Your task to perform on an android device: change the clock display to digital Image 0: 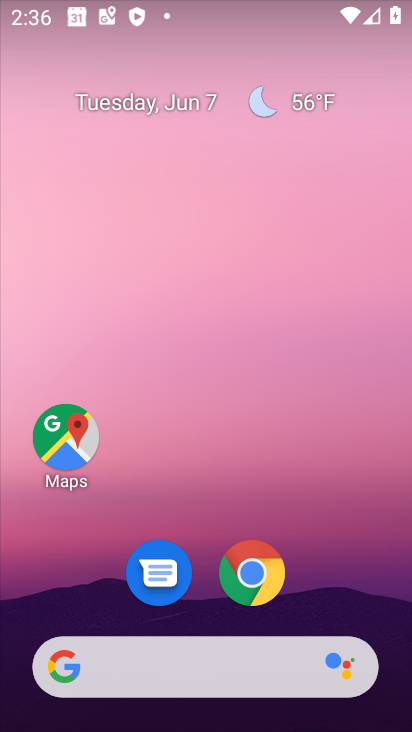
Step 0: drag from (334, 585) to (380, 5)
Your task to perform on an android device: change the clock display to digital Image 1: 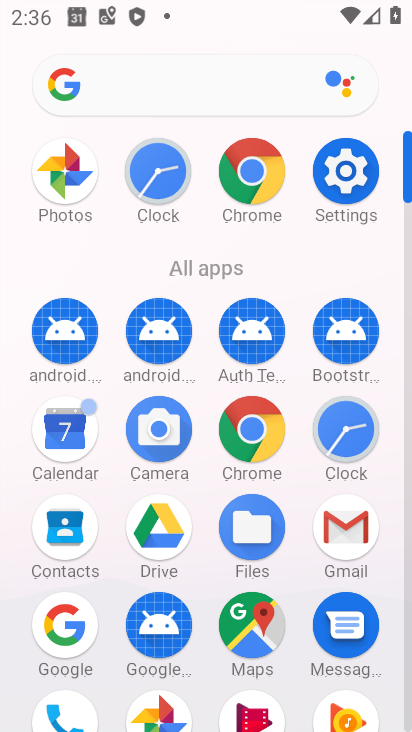
Step 1: click (343, 431)
Your task to perform on an android device: change the clock display to digital Image 2: 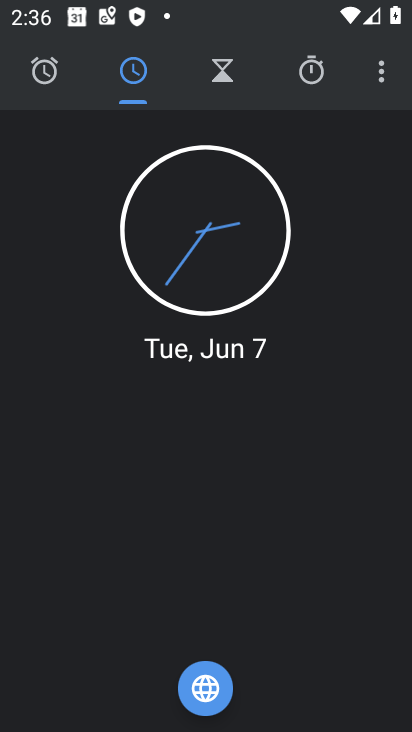
Step 2: click (375, 80)
Your task to perform on an android device: change the clock display to digital Image 3: 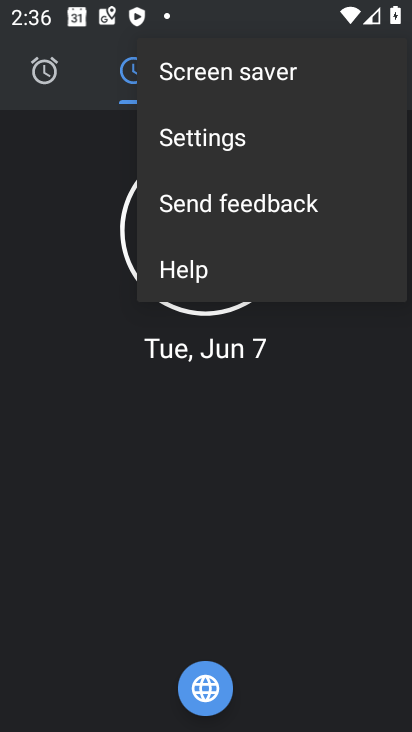
Step 3: click (206, 132)
Your task to perform on an android device: change the clock display to digital Image 4: 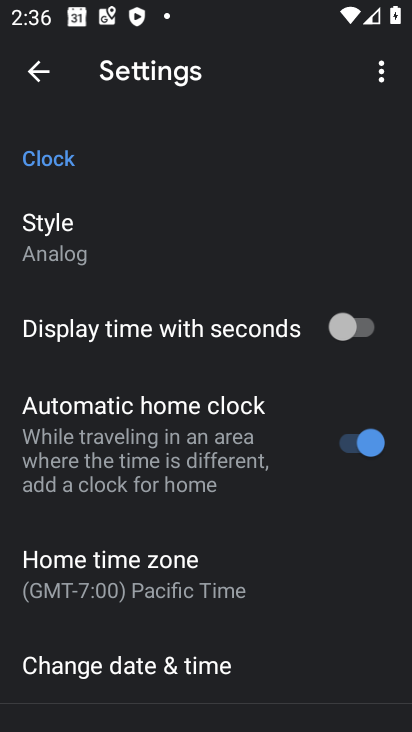
Step 4: click (73, 243)
Your task to perform on an android device: change the clock display to digital Image 5: 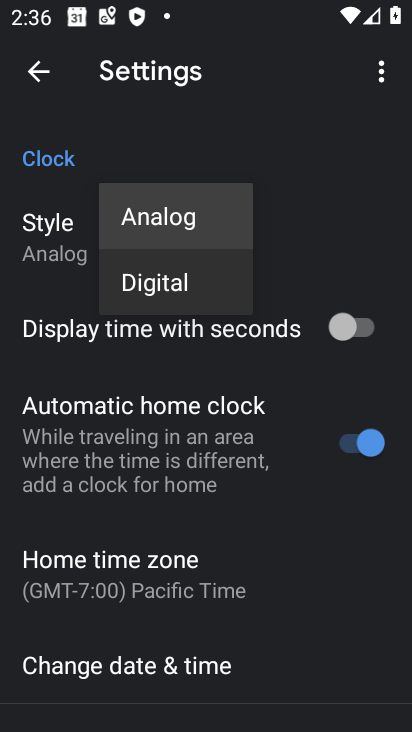
Step 5: click (186, 268)
Your task to perform on an android device: change the clock display to digital Image 6: 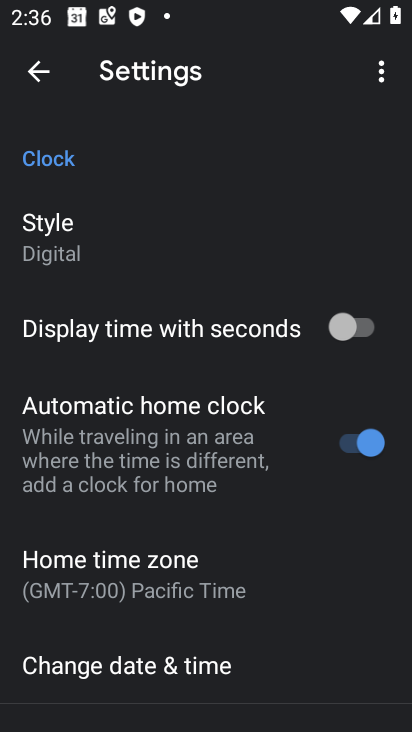
Step 6: task complete